Your task to perform on an android device: Find coffee shops on Maps Image 0: 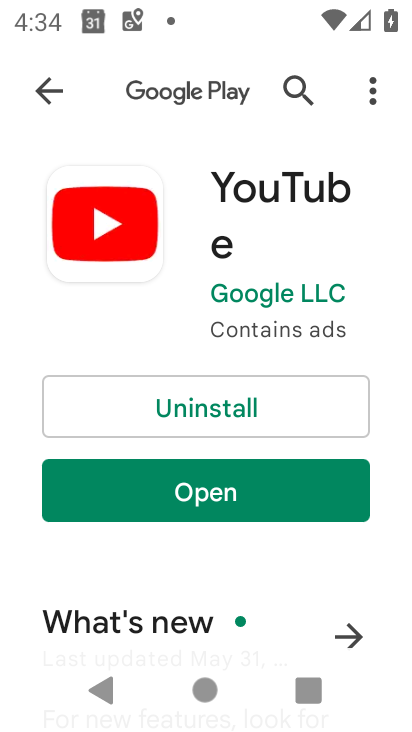
Step 0: press home button
Your task to perform on an android device: Find coffee shops on Maps Image 1: 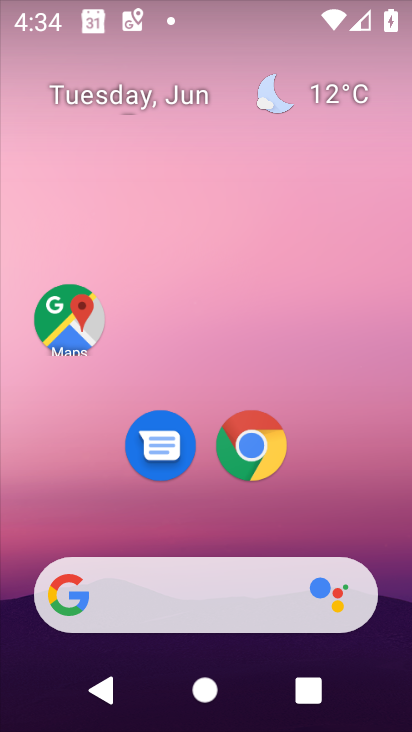
Step 1: drag from (328, 487) to (306, 12)
Your task to perform on an android device: Find coffee shops on Maps Image 2: 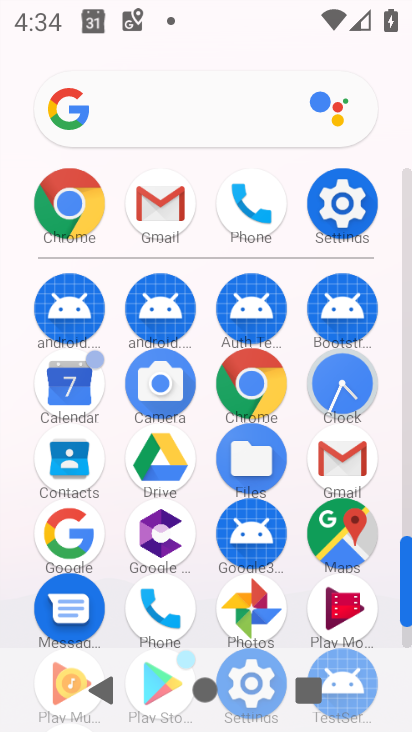
Step 2: click (338, 527)
Your task to perform on an android device: Find coffee shops on Maps Image 3: 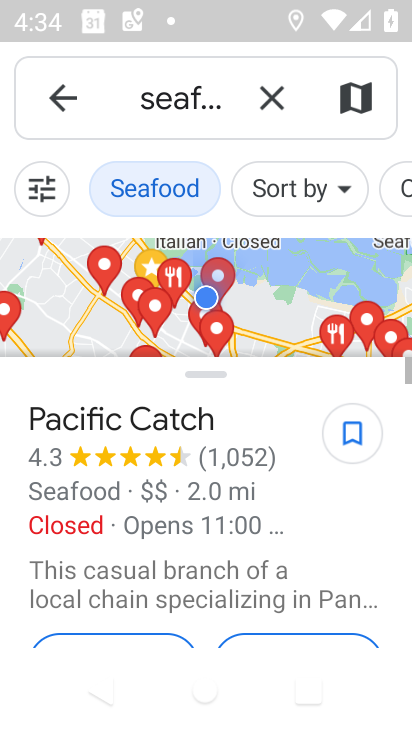
Step 3: click (284, 107)
Your task to perform on an android device: Find coffee shops on Maps Image 4: 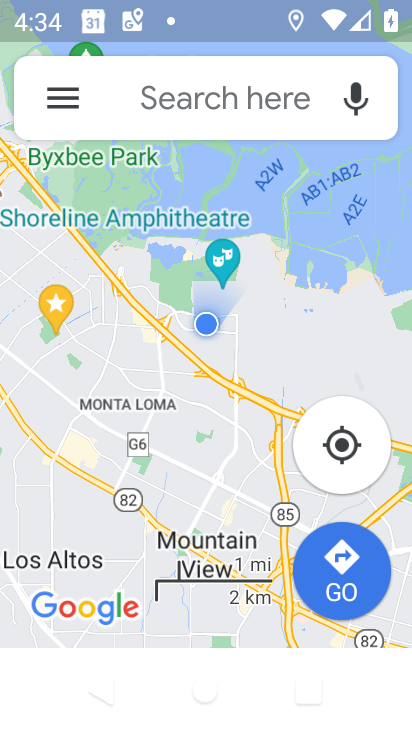
Step 4: click (249, 122)
Your task to perform on an android device: Find coffee shops on Maps Image 5: 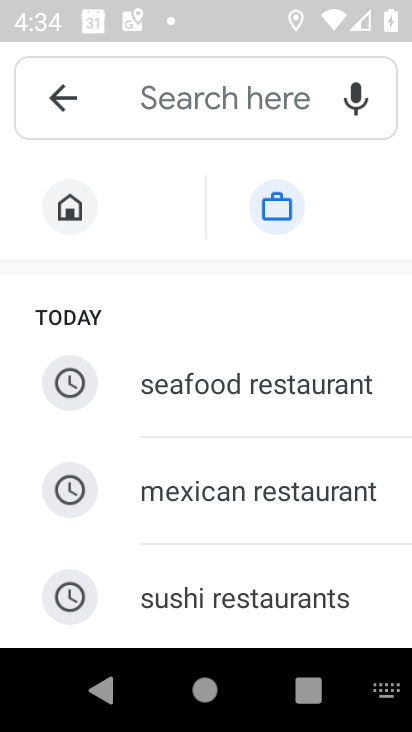
Step 5: drag from (284, 537) to (277, 129)
Your task to perform on an android device: Find coffee shops on Maps Image 6: 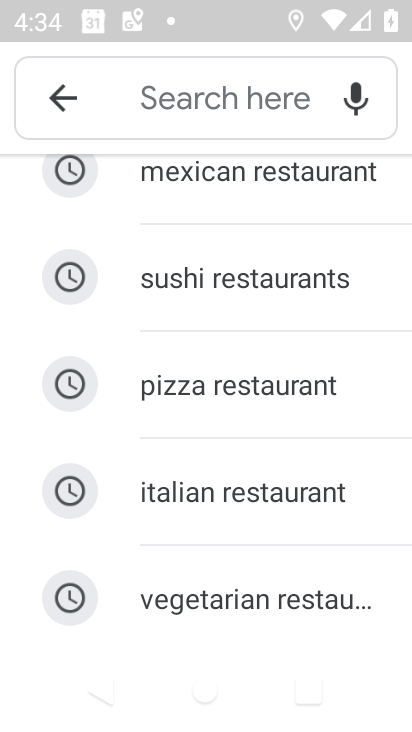
Step 6: drag from (241, 541) to (258, 100)
Your task to perform on an android device: Find coffee shops on Maps Image 7: 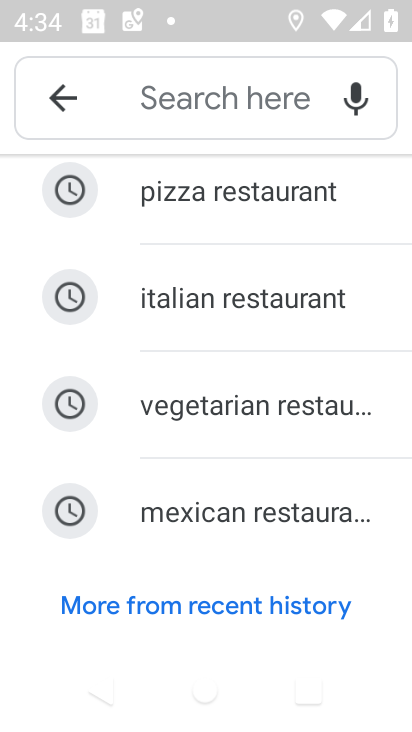
Step 7: type "coffee"
Your task to perform on an android device: Find coffee shops on Maps Image 8: 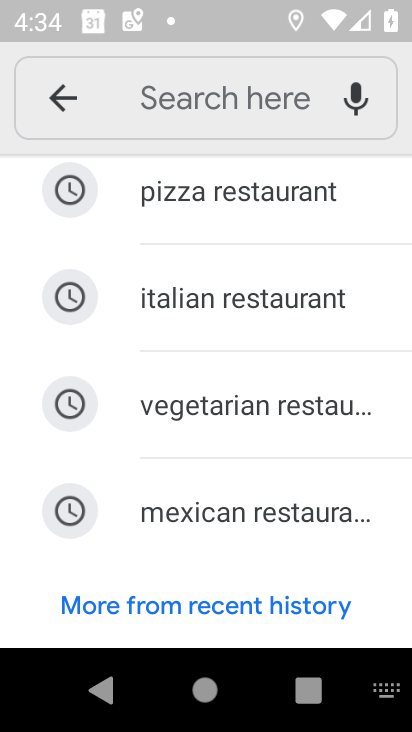
Step 8: drag from (311, 299) to (290, 725)
Your task to perform on an android device: Find coffee shops on Maps Image 9: 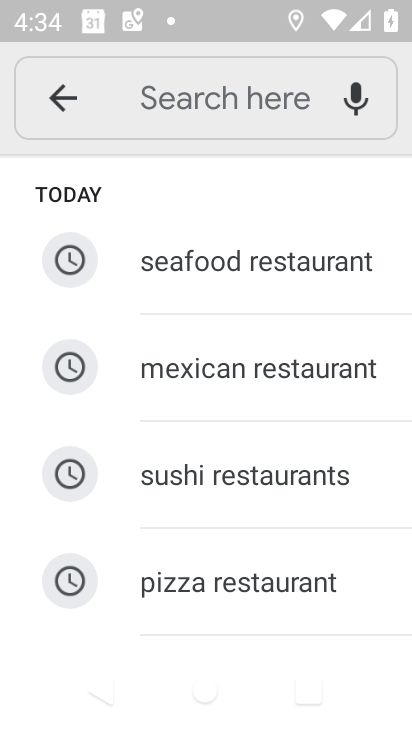
Step 9: drag from (273, 310) to (268, 722)
Your task to perform on an android device: Find coffee shops on Maps Image 10: 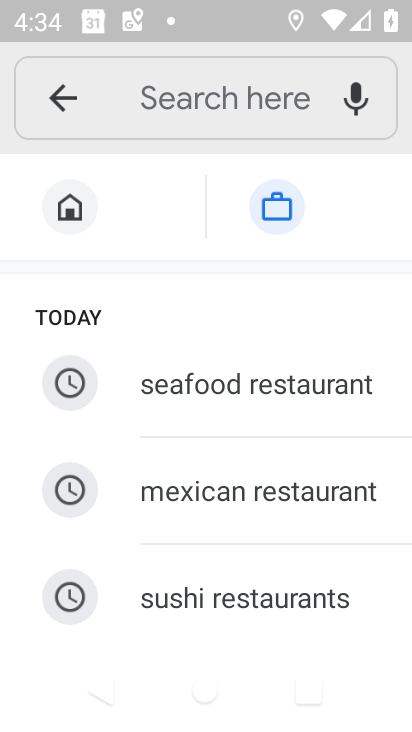
Step 10: drag from (304, 268) to (287, 730)
Your task to perform on an android device: Find coffee shops on Maps Image 11: 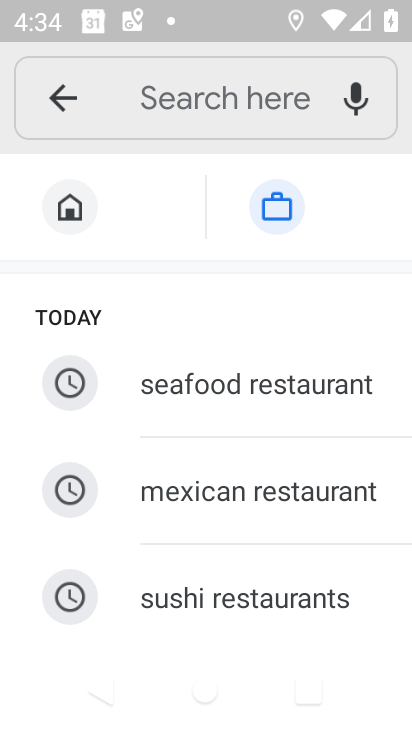
Step 11: click (218, 74)
Your task to perform on an android device: Find coffee shops on Maps Image 12: 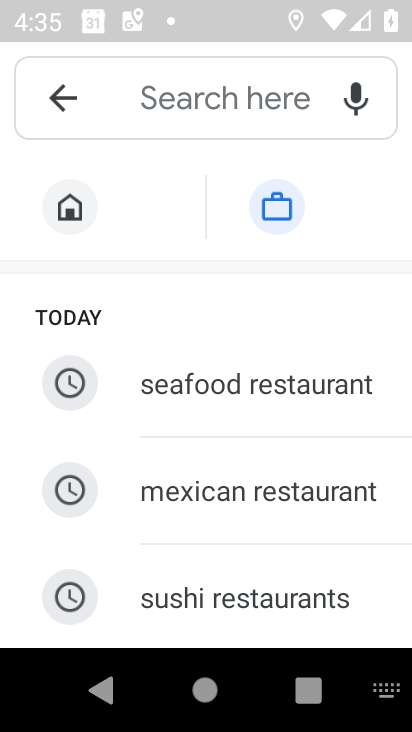
Step 12: type "coffee"
Your task to perform on an android device: Find coffee shops on Maps Image 13: 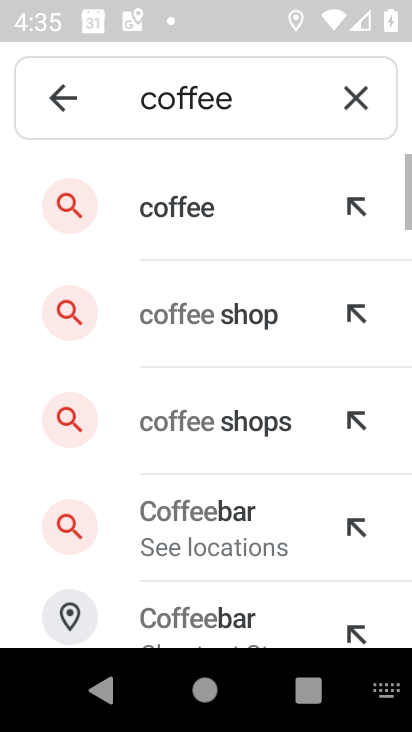
Step 13: click (194, 195)
Your task to perform on an android device: Find coffee shops on Maps Image 14: 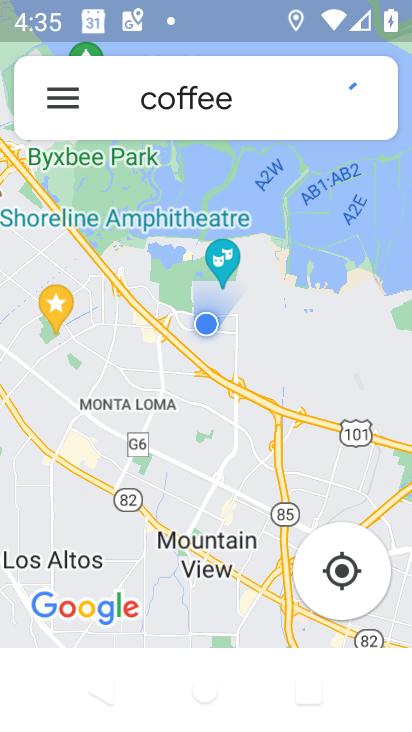
Step 14: task complete